Your task to perform on an android device: Open the calendar app, open the side menu, and click the "Day" option Image 0: 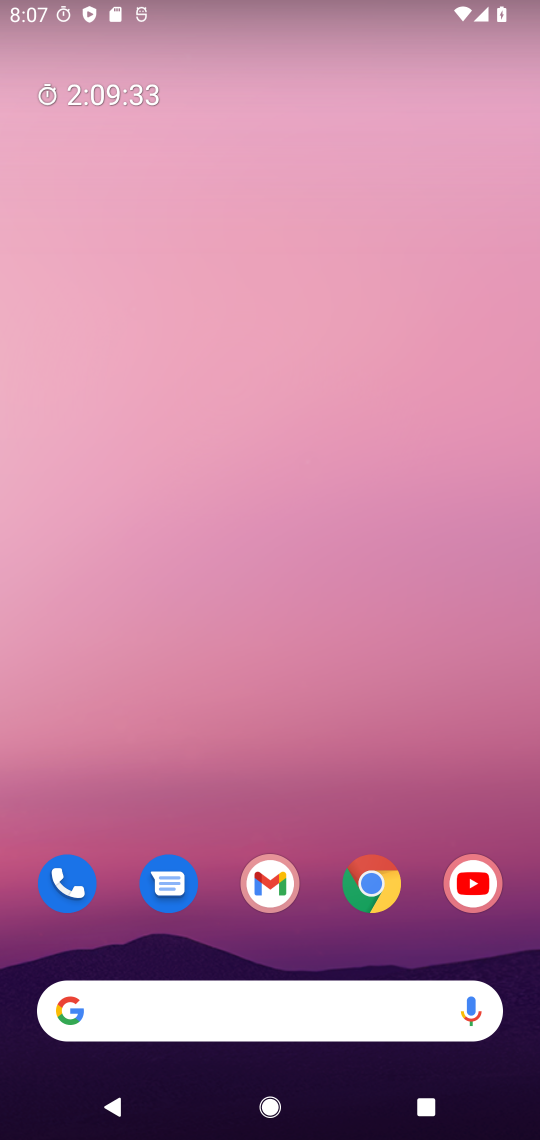
Step 0: click (343, 1038)
Your task to perform on an android device: Open the calendar app, open the side menu, and click the "Day" option Image 1: 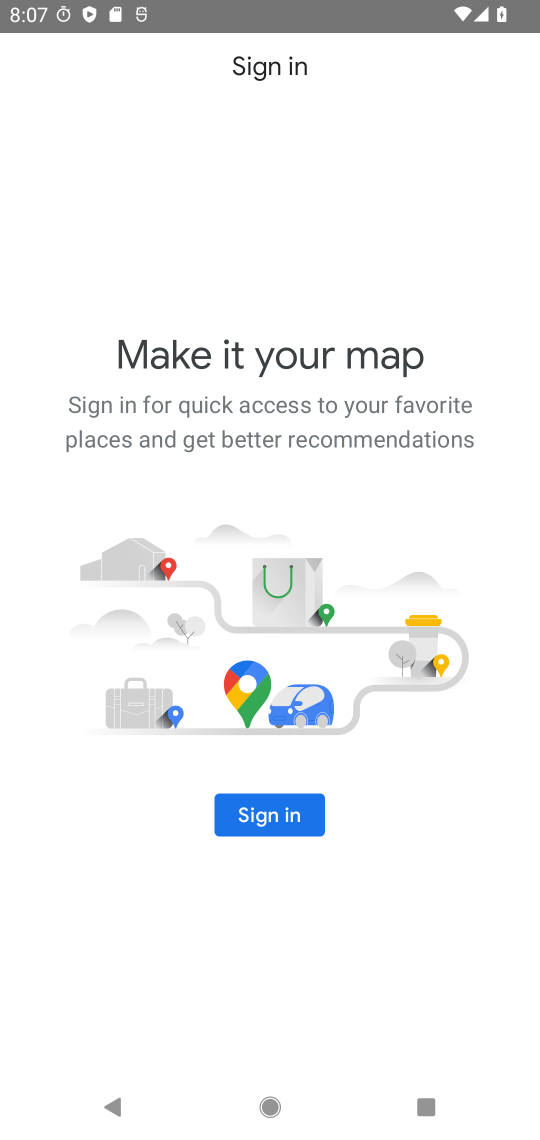
Step 1: press home button
Your task to perform on an android device: Open the calendar app, open the side menu, and click the "Day" option Image 2: 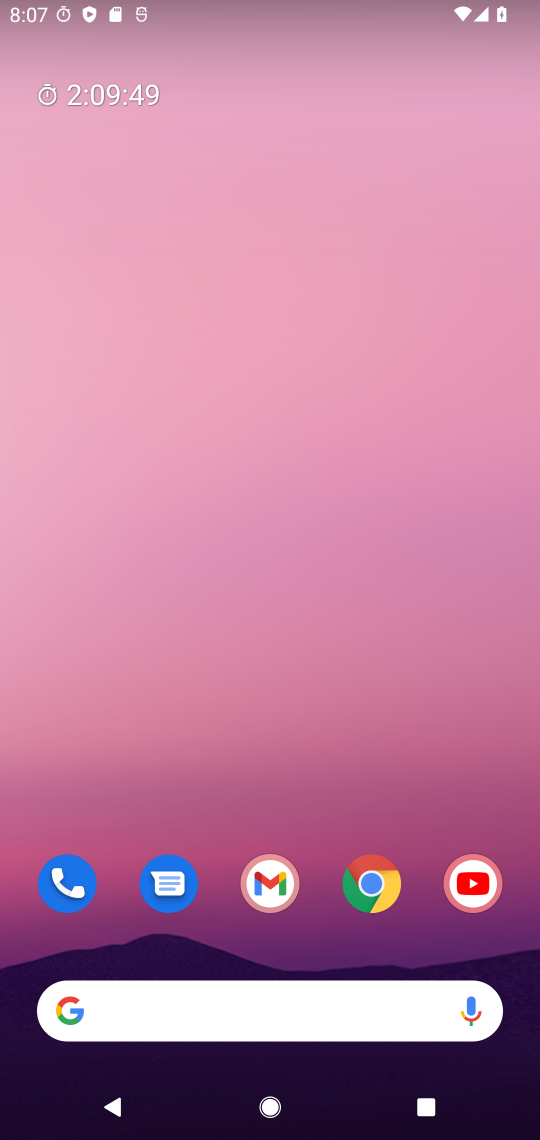
Step 2: drag from (302, 749) to (337, 82)
Your task to perform on an android device: Open the calendar app, open the side menu, and click the "Day" option Image 3: 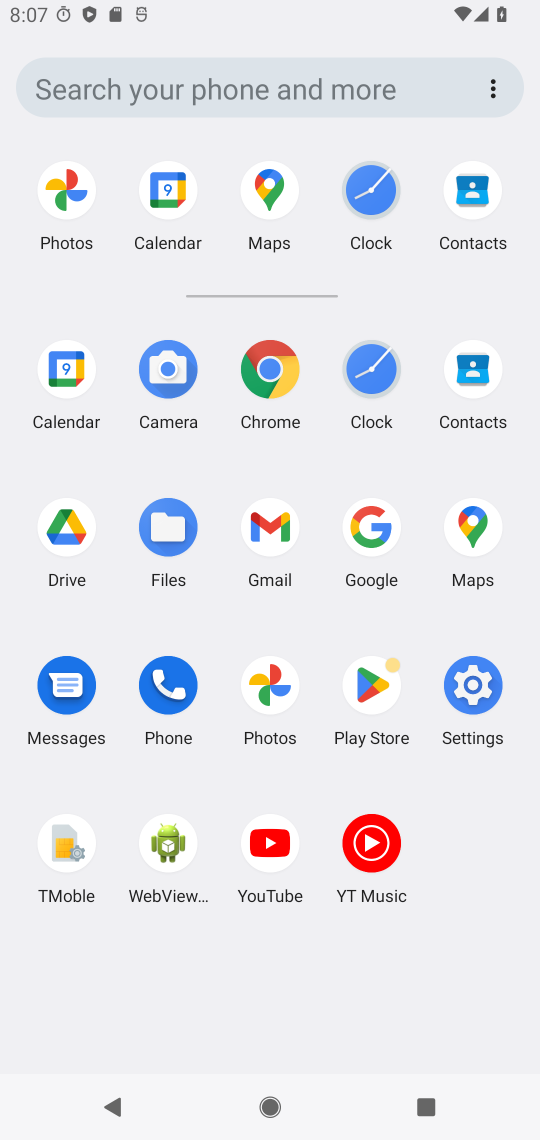
Step 3: click (67, 395)
Your task to perform on an android device: Open the calendar app, open the side menu, and click the "Day" option Image 4: 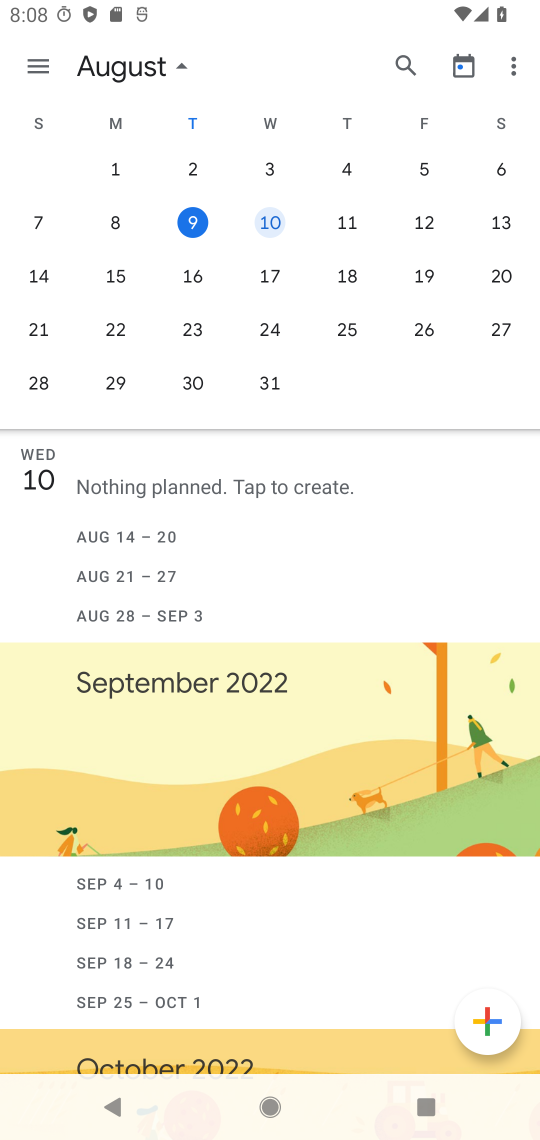
Step 4: click (39, 50)
Your task to perform on an android device: Open the calendar app, open the side menu, and click the "Day" option Image 5: 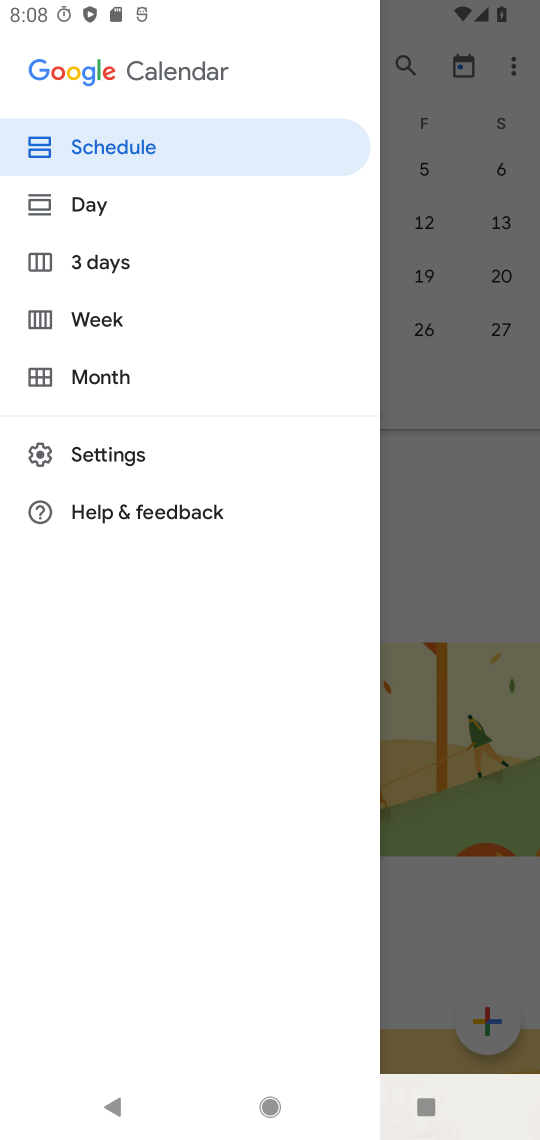
Step 5: click (161, 200)
Your task to perform on an android device: Open the calendar app, open the side menu, and click the "Day" option Image 6: 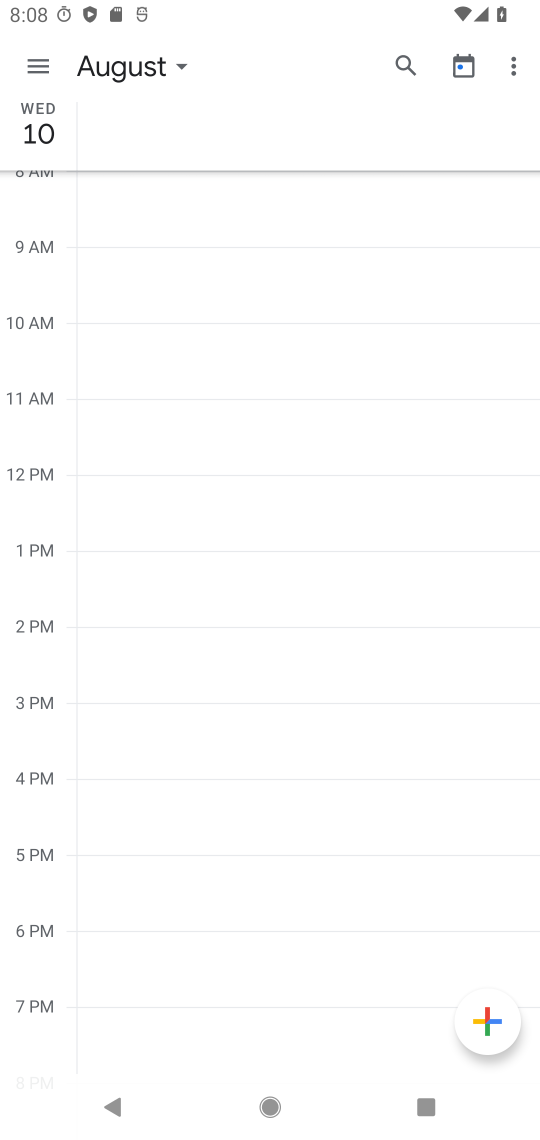
Step 6: task complete